Your task to perform on an android device: Go to accessibility settings Image 0: 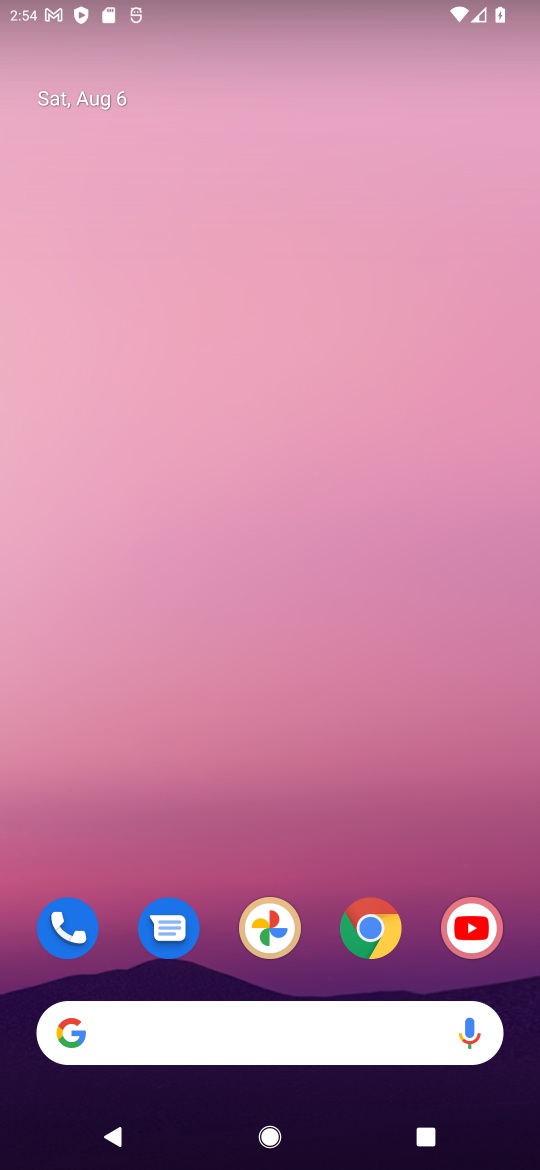
Step 0: drag from (286, 972) to (286, 231)
Your task to perform on an android device: Go to accessibility settings Image 1: 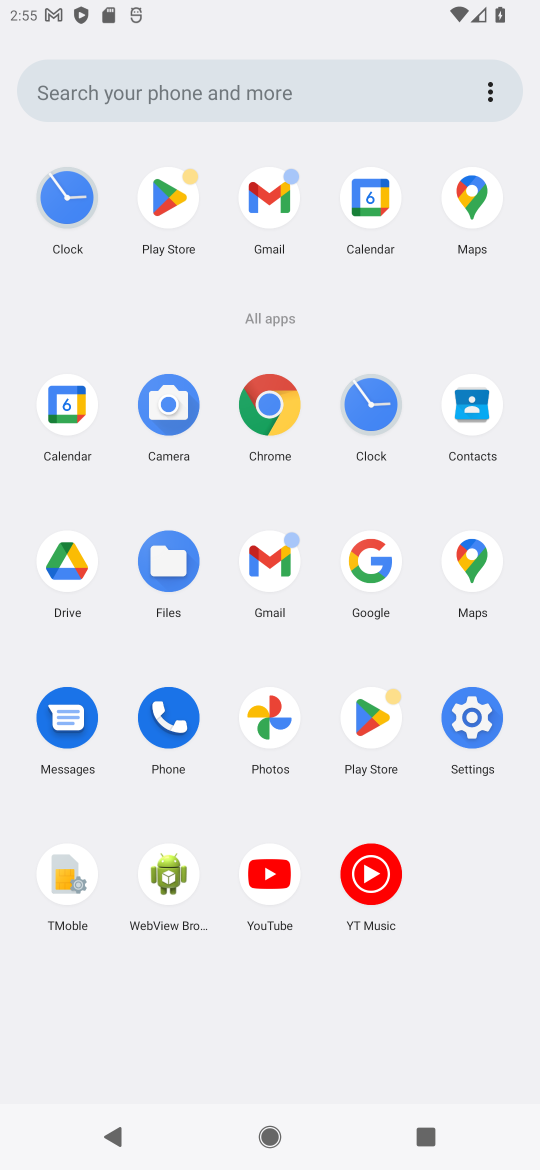
Step 1: click (470, 707)
Your task to perform on an android device: Go to accessibility settings Image 2: 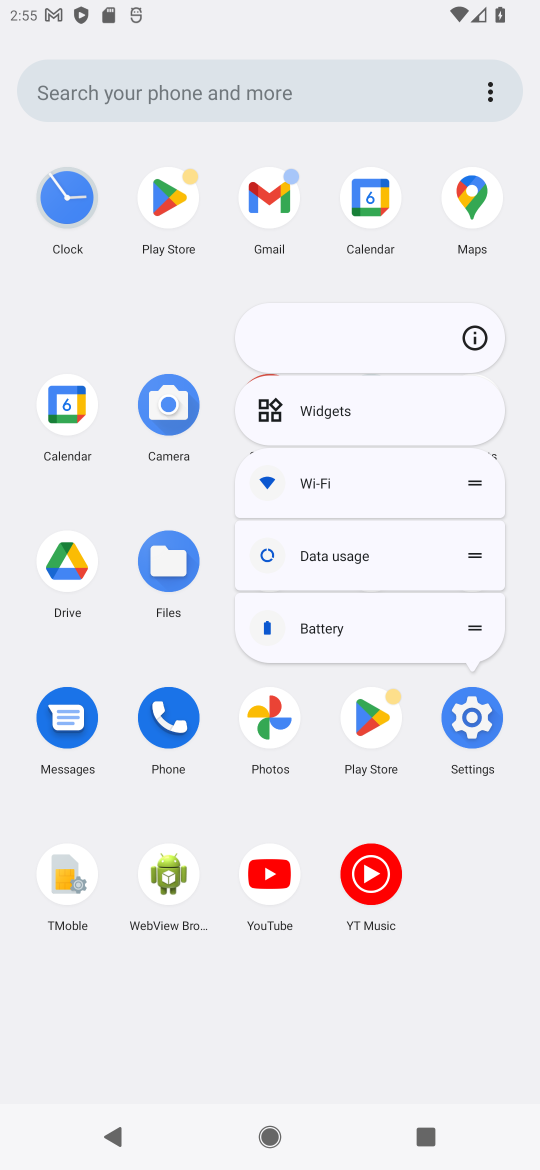
Step 2: click (475, 330)
Your task to perform on an android device: Go to accessibility settings Image 3: 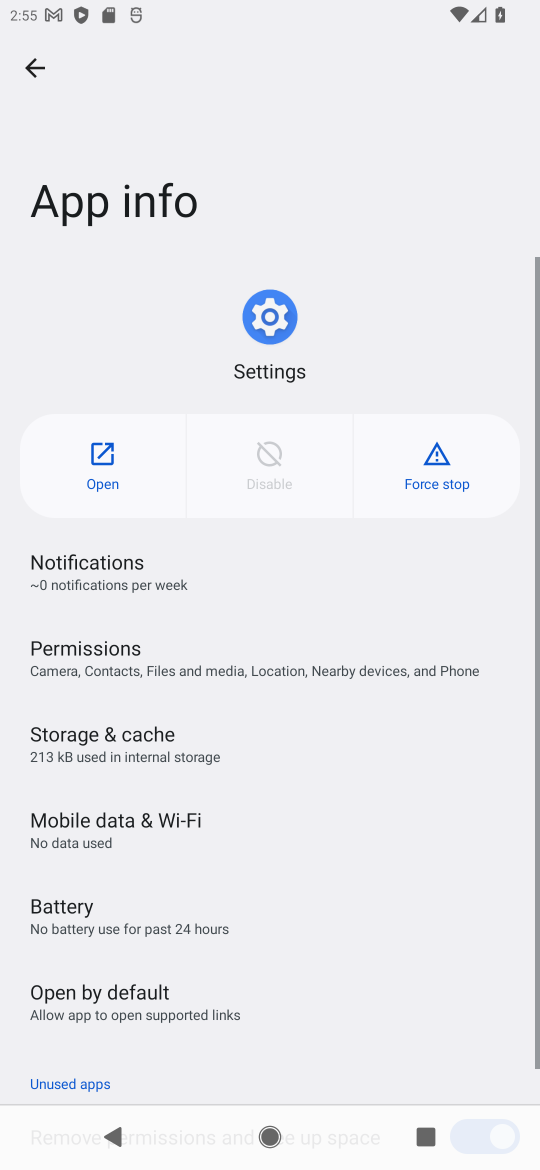
Step 3: click (96, 468)
Your task to perform on an android device: Go to accessibility settings Image 4: 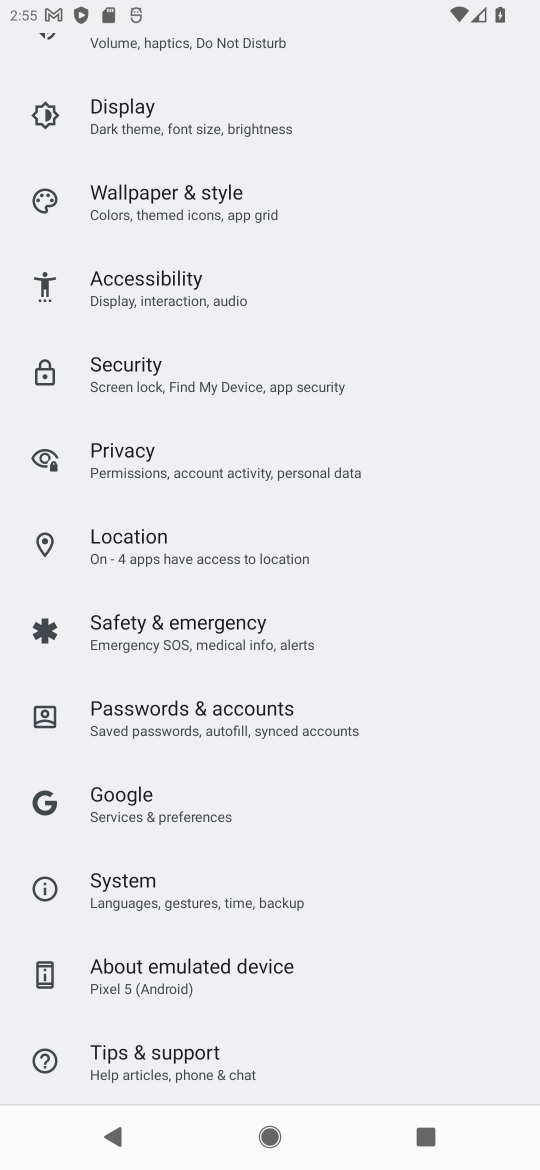
Step 4: drag from (263, 939) to (328, 486)
Your task to perform on an android device: Go to accessibility settings Image 5: 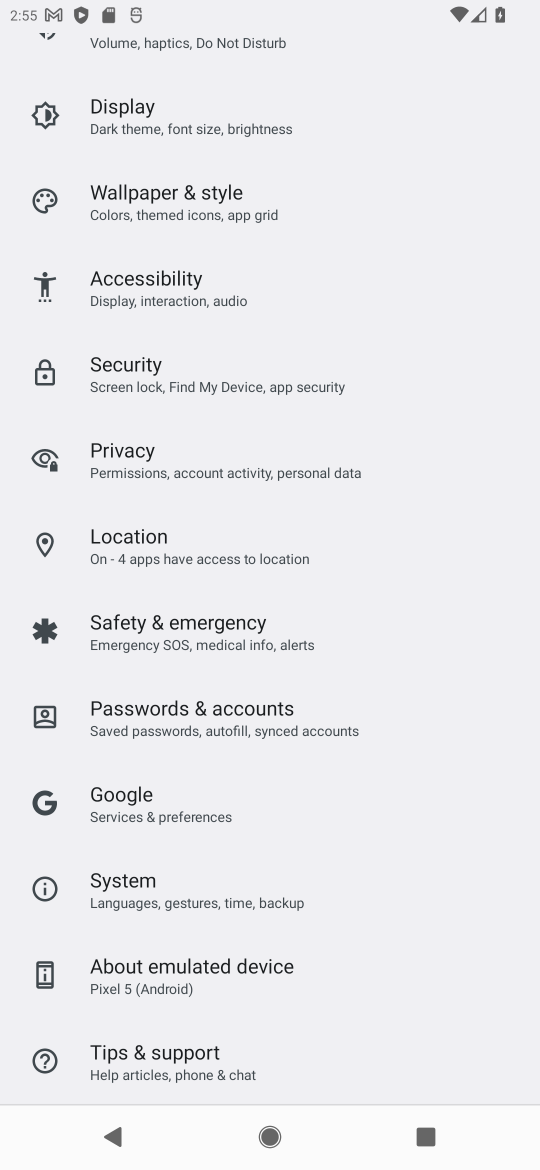
Step 5: click (218, 296)
Your task to perform on an android device: Go to accessibility settings Image 6: 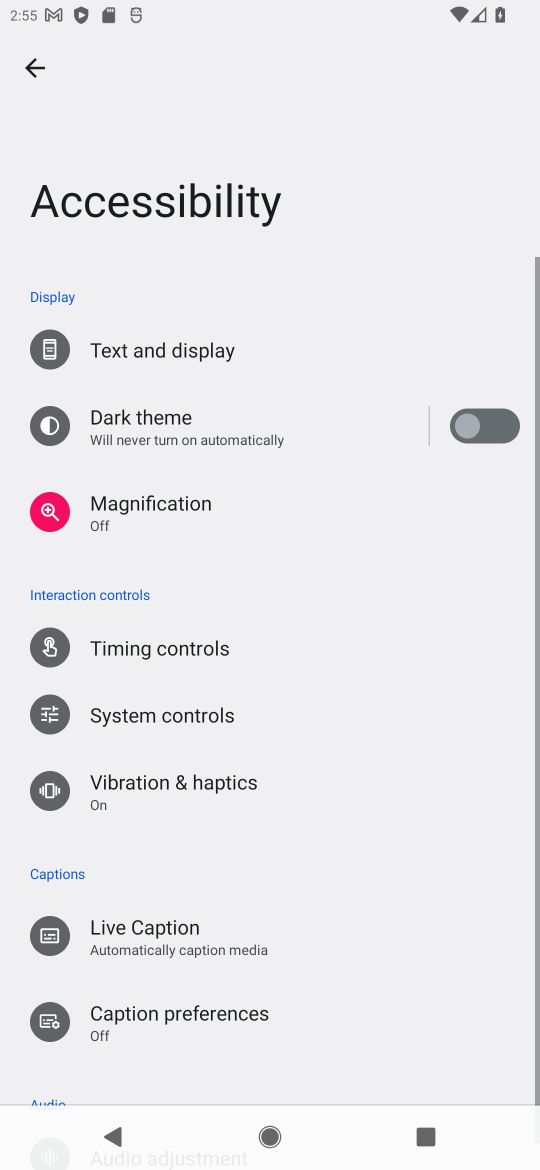
Step 6: task complete